Your task to perform on an android device: Go to Reddit.com Image 0: 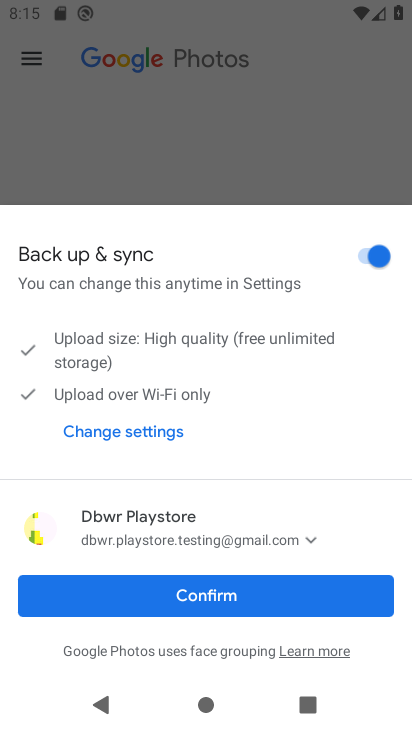
Step 0: press home button
Your task to perform on an android device: Go to Reddit.com Image 1: 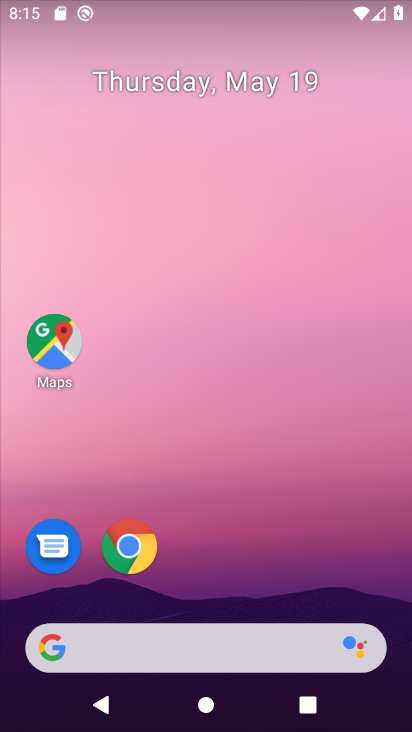
Step 1: click (137, 551)
Your task to perform on an android device: Go to Reddit.com Image 2: 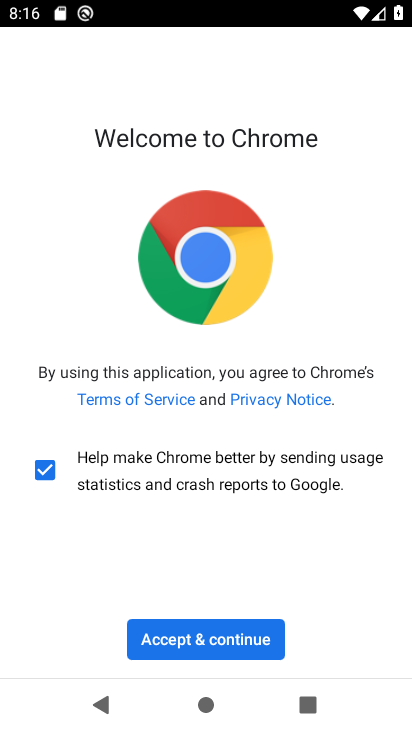
Step 2: click (224, 646)
Your task to perform on an android device: Go to Reddit.com Image 3: 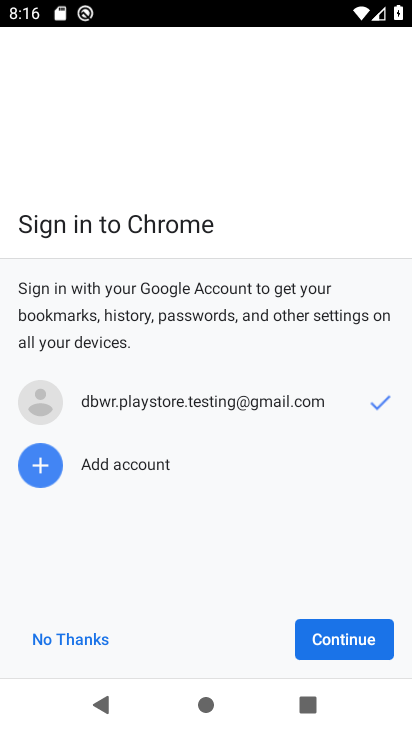
Step 3: click (309, 632)
Your task to perform on an android device: Go to Reddit.com Image 4: 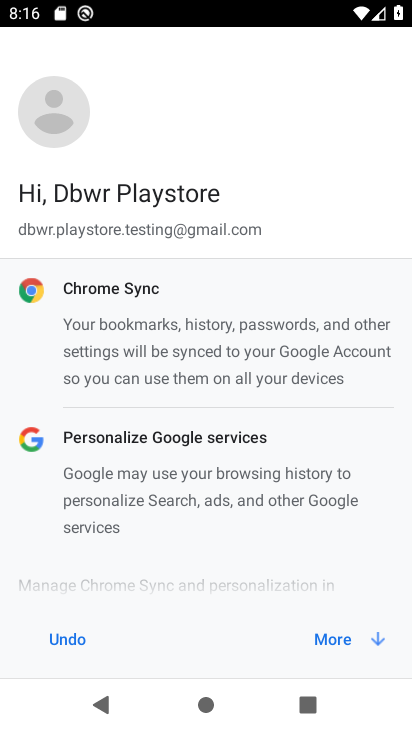
Step 4: click (320, 628)
Your task to perform on an android device: Go to Reddit.com Image 5: 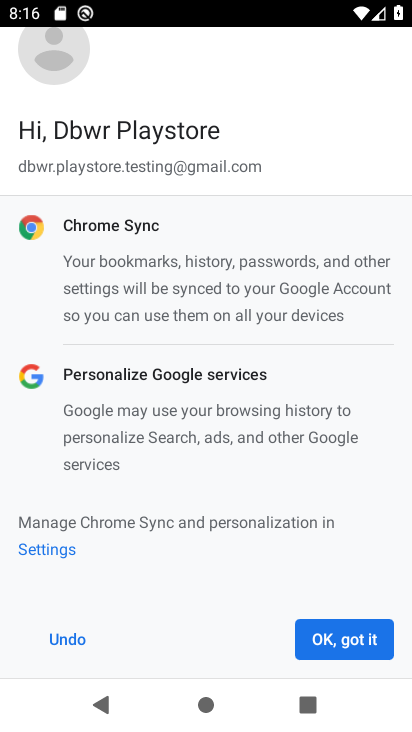
Step 5: click (334, 646)
Your task to perform on an android device: Go to Reddit.com Image 6: 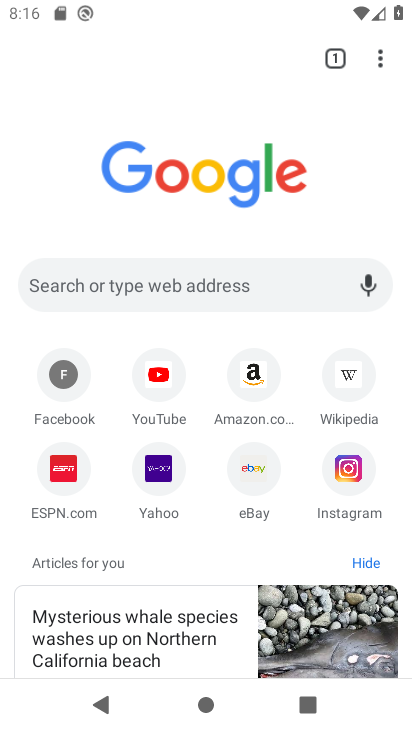
Step 6: click (247, 292)
Your task to perform on an android device: Go to Reddit.com Image 7: 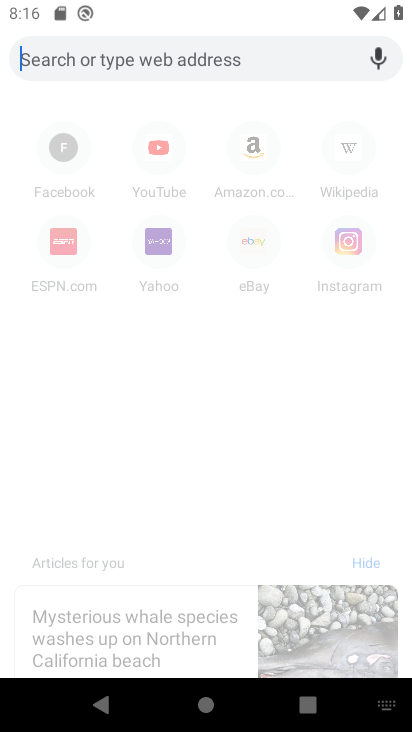
Step 7: type "reddit.com"
Your task to perform on an android device: Go to Reddit.com Image 8: 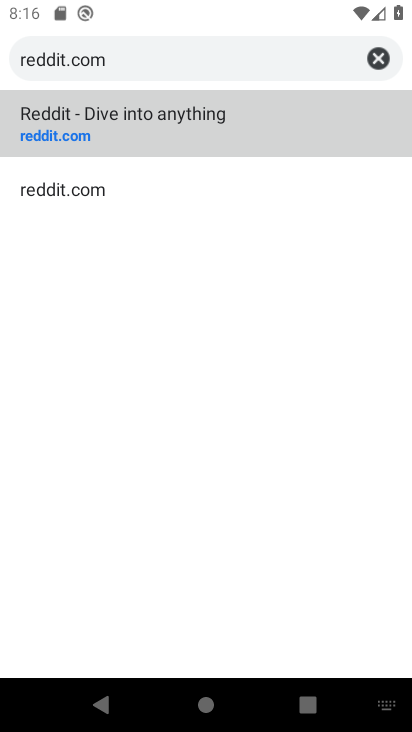
Step 8: click (64, 138)
Your task to perform on an android device: Go to Reddit.com Image 9: 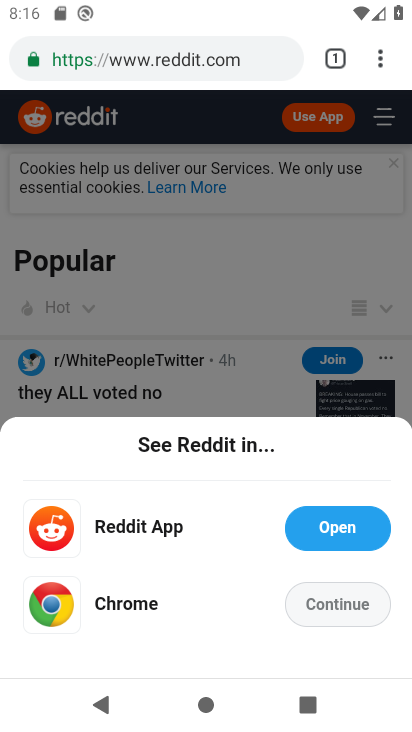
Step 9: task complete